Your task to perform on an android device: Open battery settings Image 0: 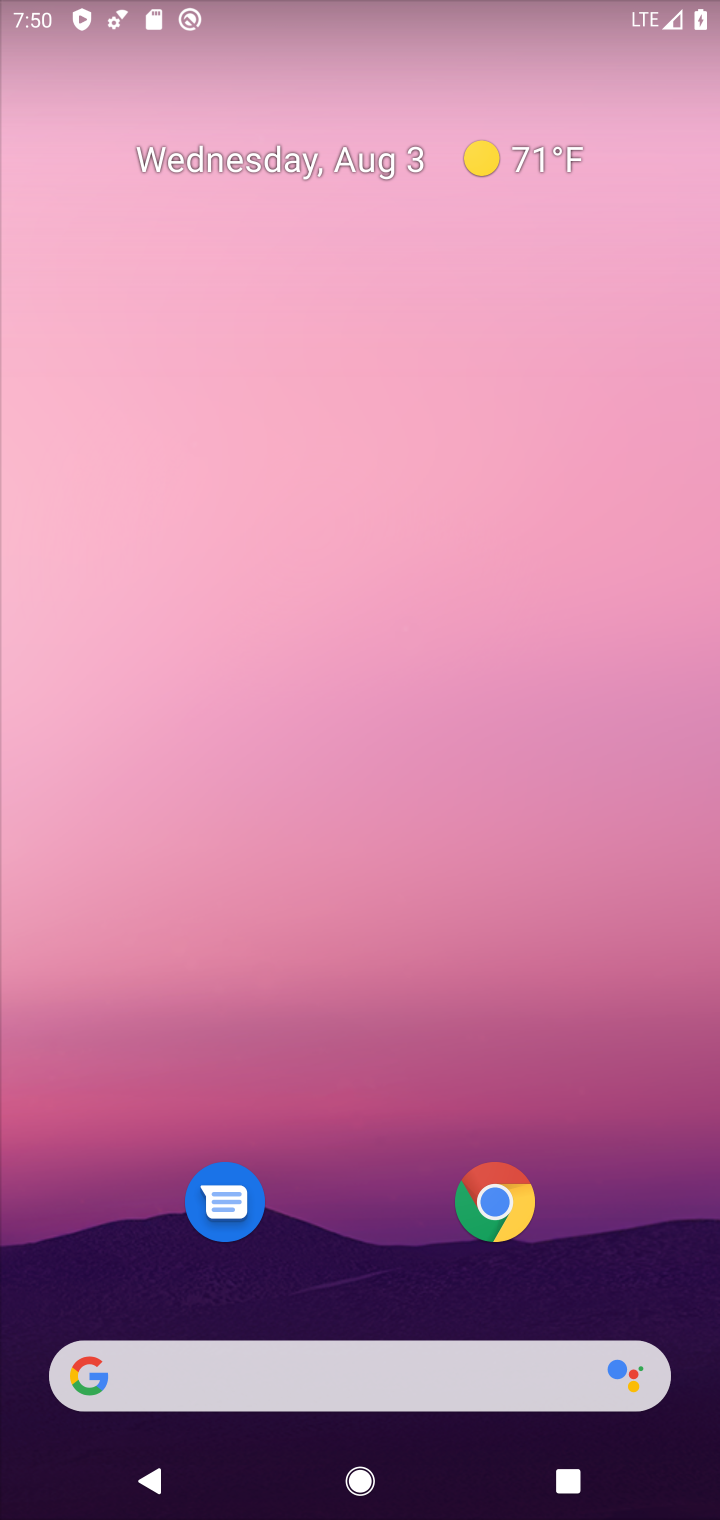
Step 0: drag from (328, 1387) to (417, 385)
Your task to perform on an android device: Open battery settings Image 1: 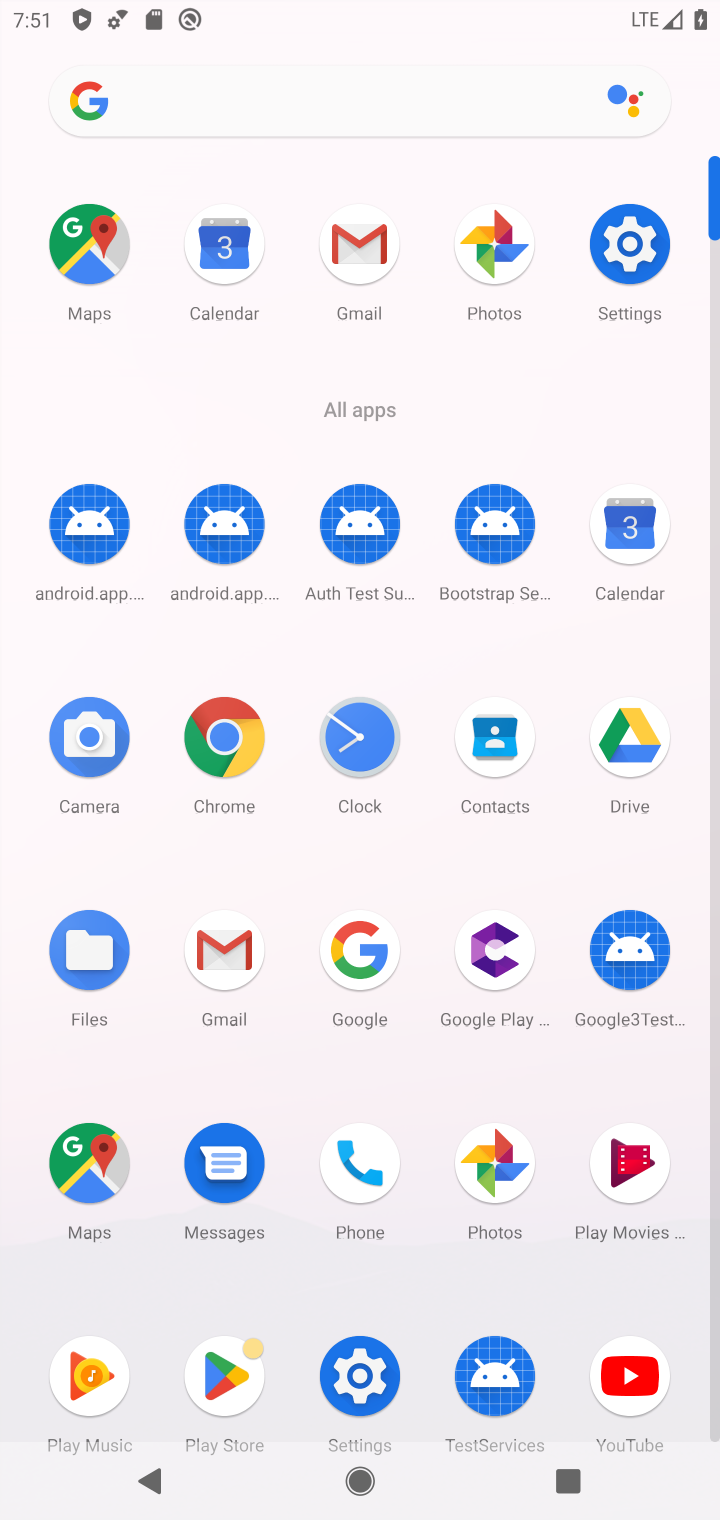
Step 1: click (630, 247)
Your task to perform on an android device: Open battery settings Image 2: 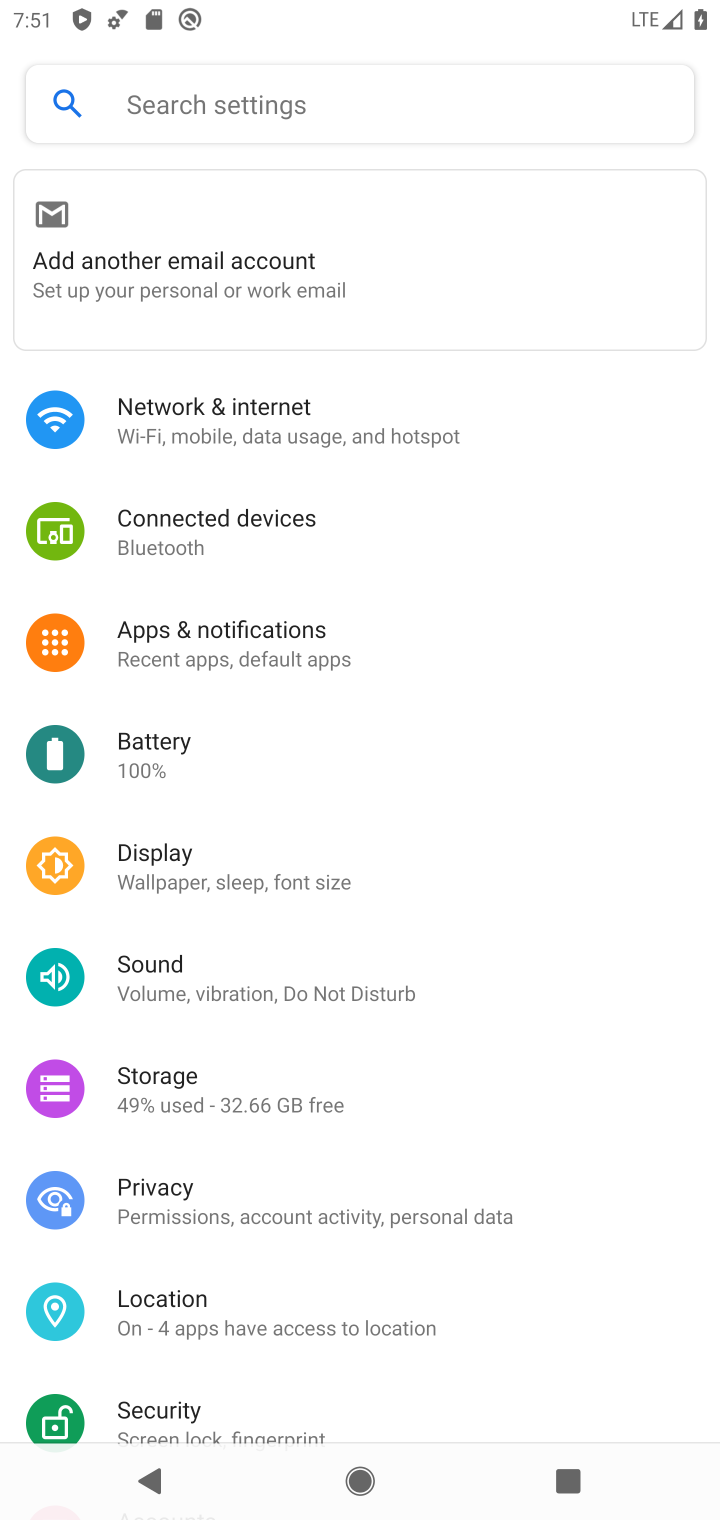
Step 2: click (152, 757)
Your task to perform on an android device: Open battery settings Image 3: 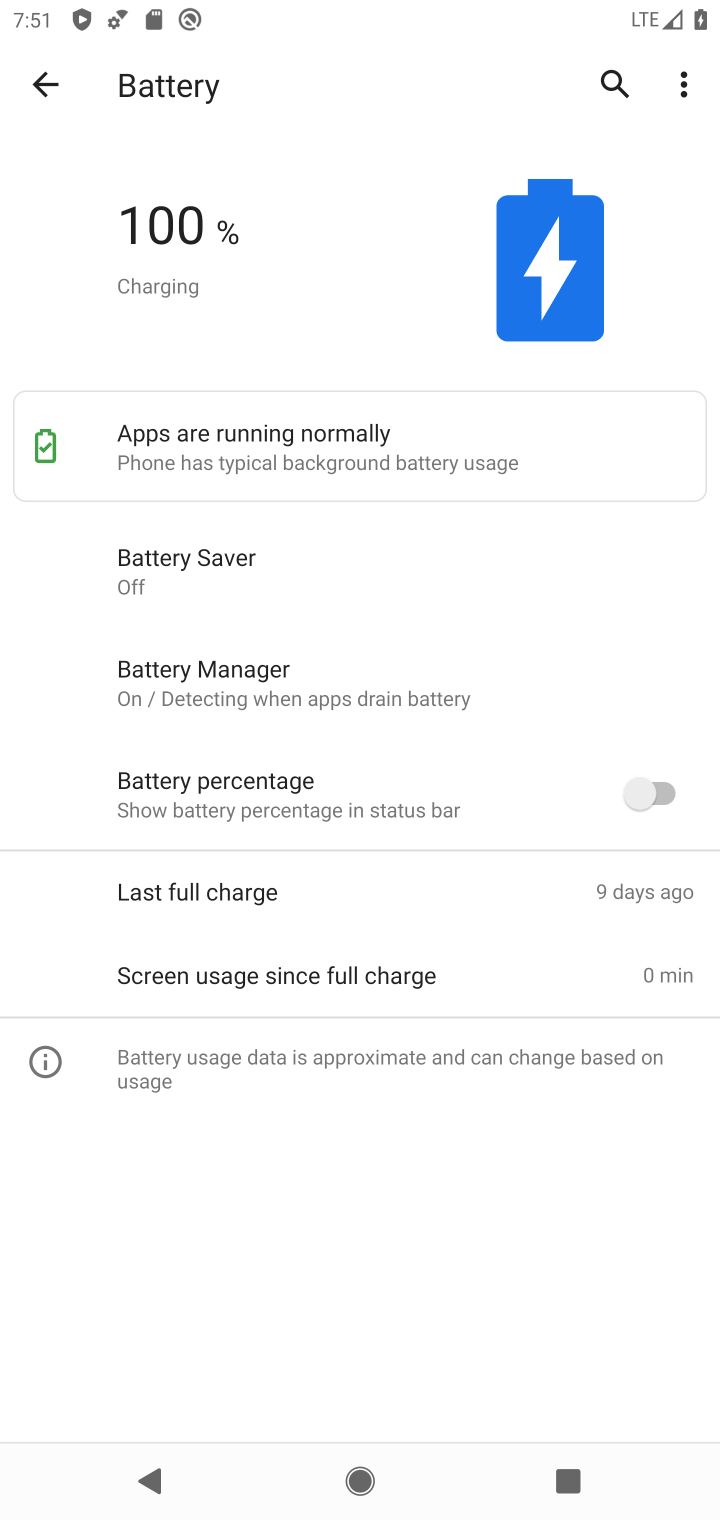
Step 3: task complete